Your task to perform on an android device: Search for alienware aurora on ebay.com, select the first entry, and add it to the cart. Image 0: 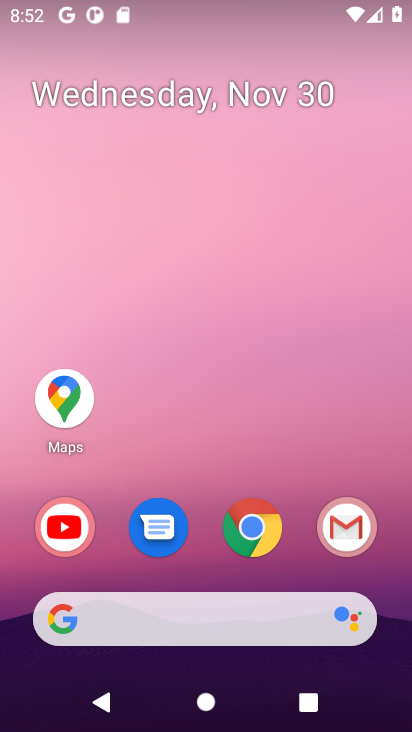
Step 0: click (257, 522)
Your task to perform on an android device: Search for alienware aurora on ebay.com, select the first entry, and add it to the cart. Image 1: 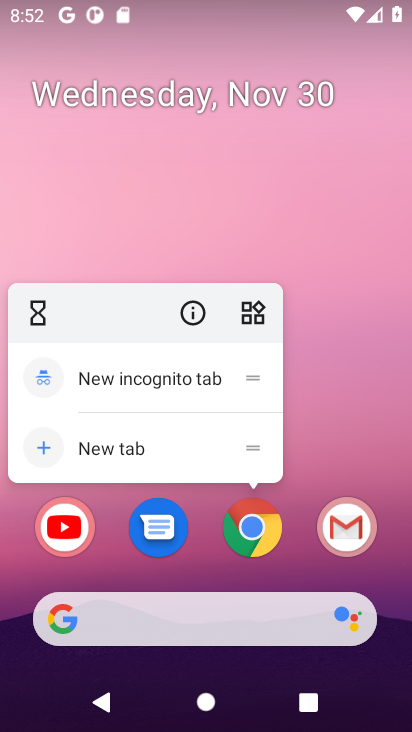
Step 1: click (257, 522)
Your task to perform on an android device: Search for alienware aurora on ebay.com, select the first entry, and add it to the cart. Image 2: 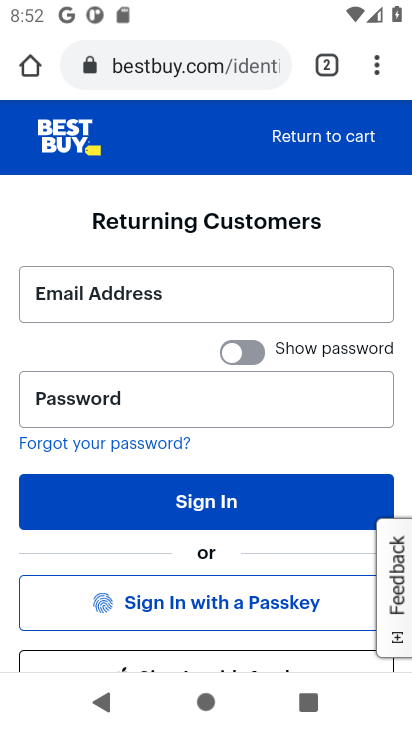
Step 2: click (246, 60)
Your task to perform on an android device: Search for alienware aurora on ebay.com, select the first entry, and add it to the cart. Image 3: 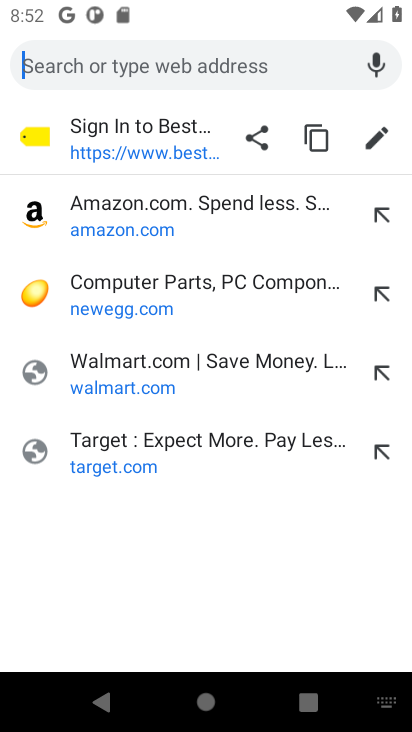
Step 3: type "ebay.com"
Your task to perform on an android device: Search for alienware aurora on ebay.com, select the first entry, and add it to the cart. Image 4: 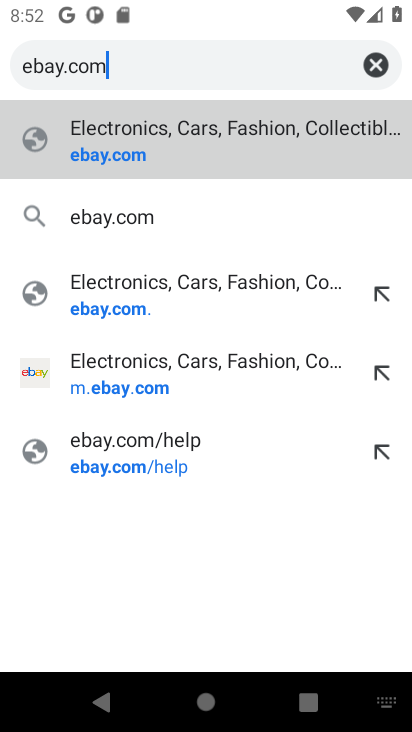
Step 4: press enter
Your task to perform on an android device: Search for alienware aurora on ebay.com, select the first entry, and add it to the cart. Image 5: 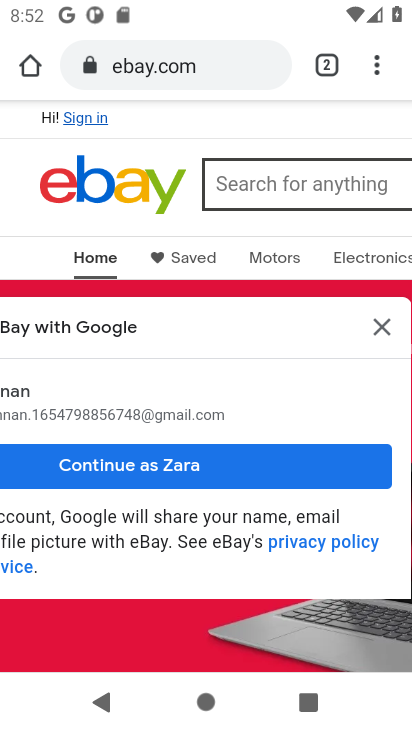
Step 5: click (378, 319)
Your task to perform on an android device: Search for alienware aurora on ebay.com, select the first entry, and add it to the cart. Image 6: 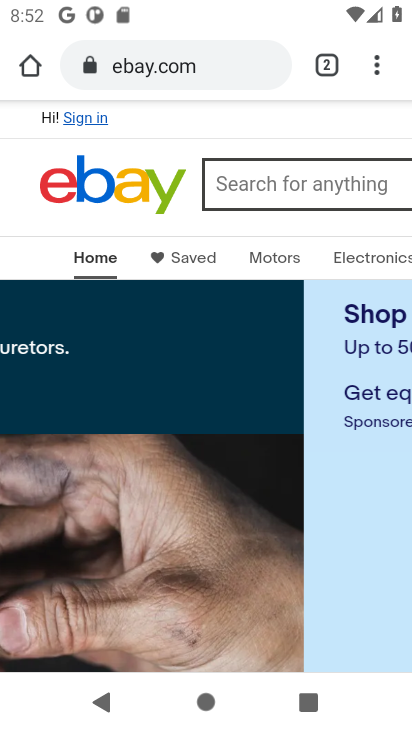
Step 6: click (281, 174)
Your task to perform on an android device: Search for alienware aurora on ebay.com, select the first entry, and add it to the cart. Image 7: 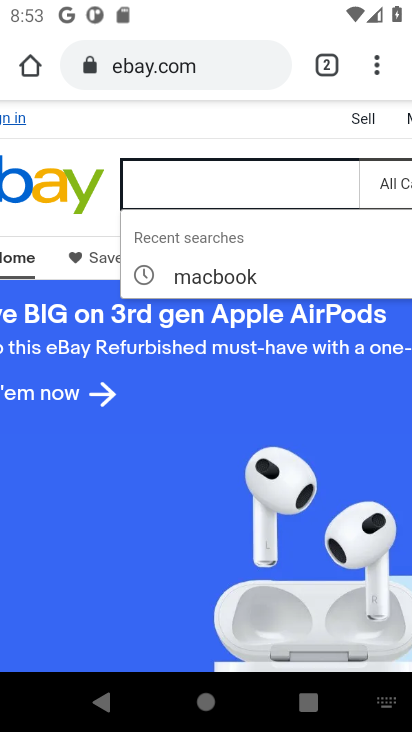
Step 7: type "alienware aurora"
Your task to perform on an android device: Search for alienware aurora on ebay.com, select the first entry, and add it to the cart. Image 8: 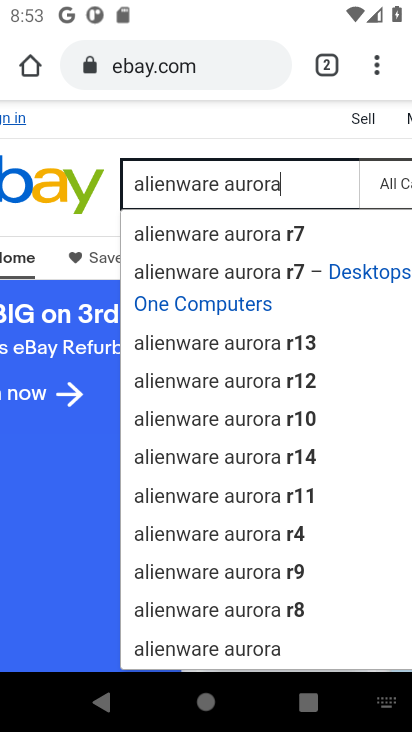
Step 8: press enter
Your task to perform on an android device: Search for alienware aurora on ebay.com, select the first entry, and add it to the cart. Image 9: 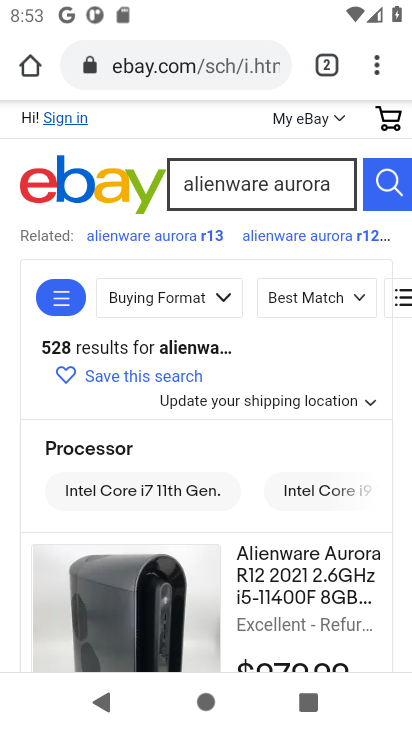
Step 9: drag from (261, 511) to (264, 227)
Your task to perform on an android device: Search for alienware aurora on ebay.com, select the first entry, and add it to the cart. Image 10: 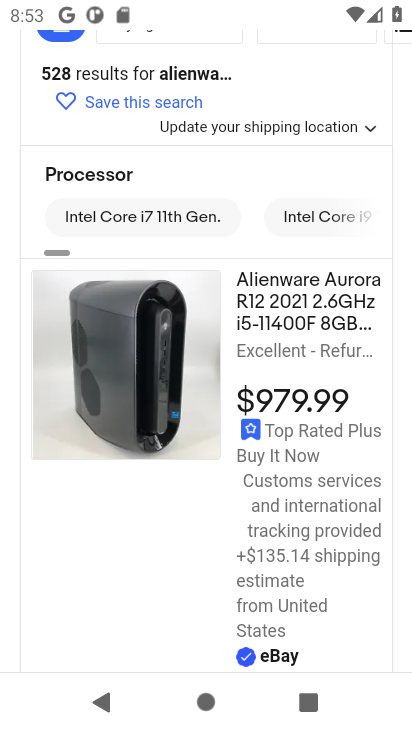
Step 10: click (128, 349)
Your task to perform on an android device: Search for alienware aurora on ebay.com, select the first entry, and add it to the cart. Image 11: 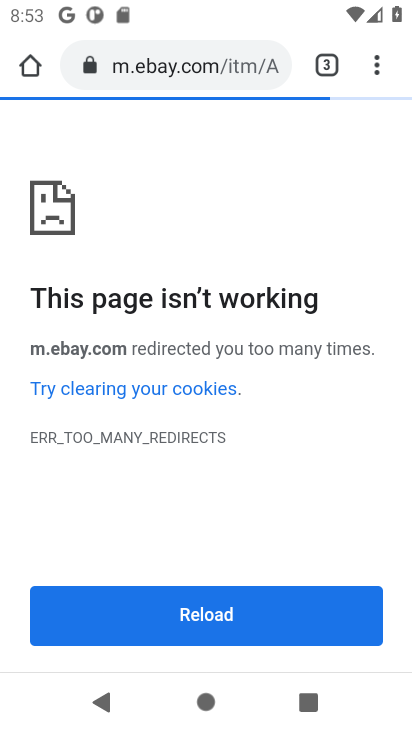
Step 11: press back button
Your task to perform on an android device: Search for alienware aurora on ebay.com, select the first entry, and add it to the cart. Image 12: 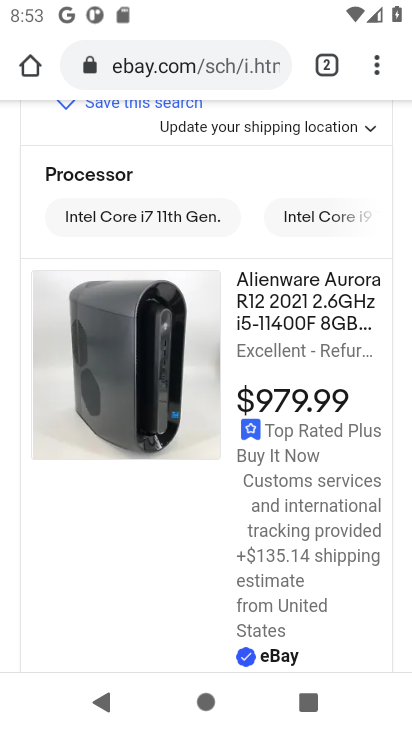
Step 12: drag from (195, 548) to (262, 64)
Your task to perform on an android device: Search for alienware aurora on ebay.com, select the first entry, and add it to the cart. Image 13: 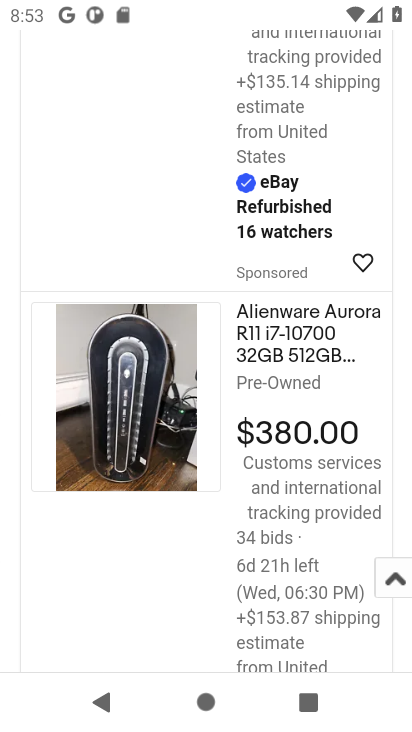
Step 13: click (127, 391)
Your task to perform on an android device: Search for alienware aurora on ebay.com, select the first entry, and add it to the cart. Image 14: 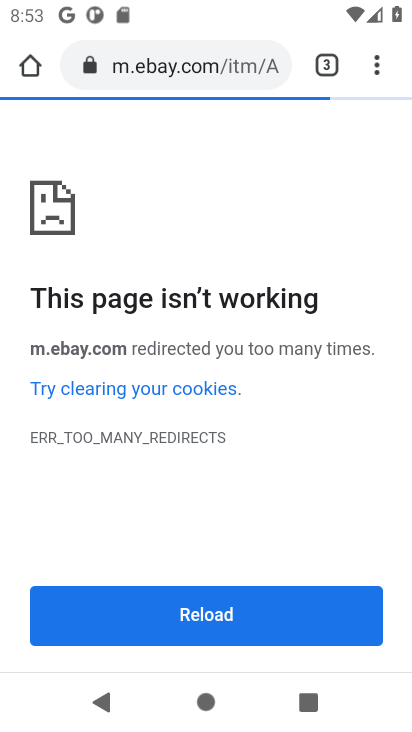
Step 14: task complete